Your task to perform on an android device: Do I have any events today? Image 0: 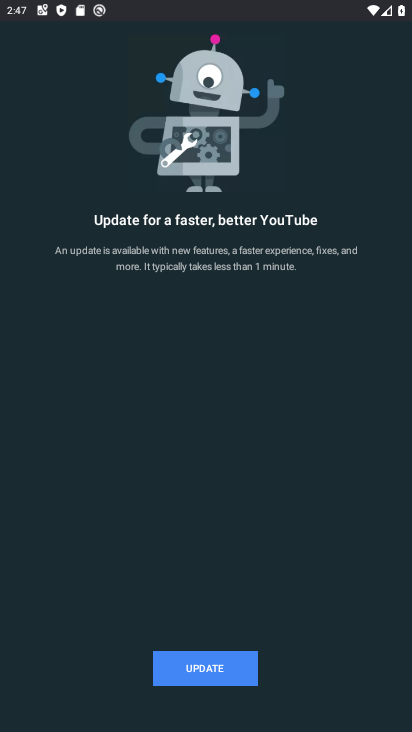
Step 0: press back button
Your task to perform on an android device: Do I have any events today? Image 1: 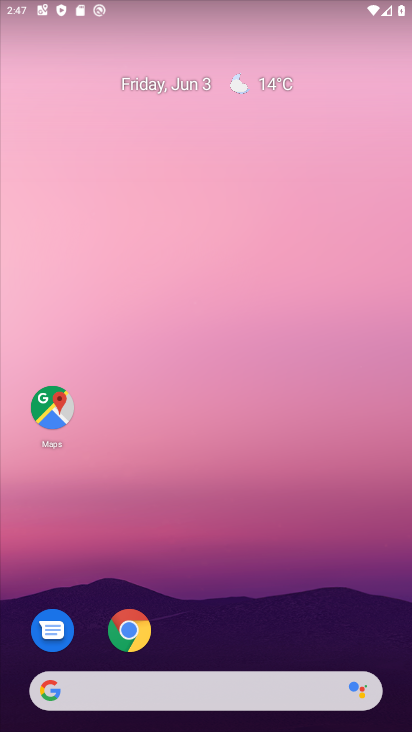
Step 1: drag from (224, 649) to (282, 201)
Your task to perform on an android device: Do I have any events today? Image 2: 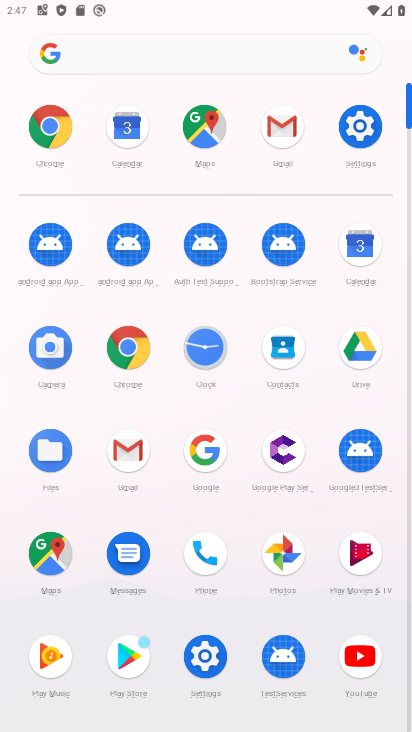
Step 2: click (369, 247)
Your task to perform on an android device: Do I have any events today? Image 3: 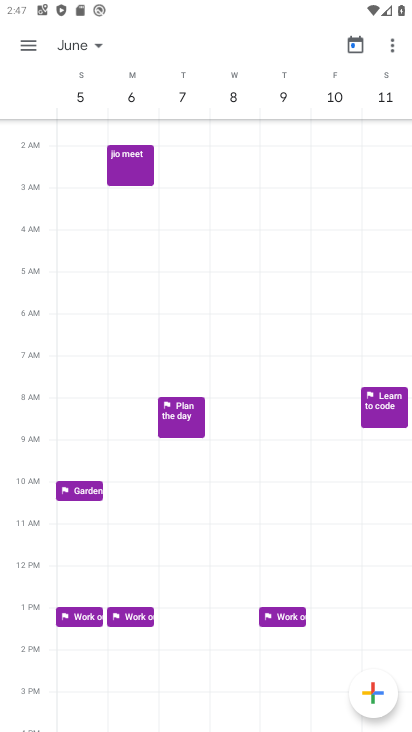
Step 3: click (38, 47)
Your task to perform on an android device: Do I have any events today? Image 4: 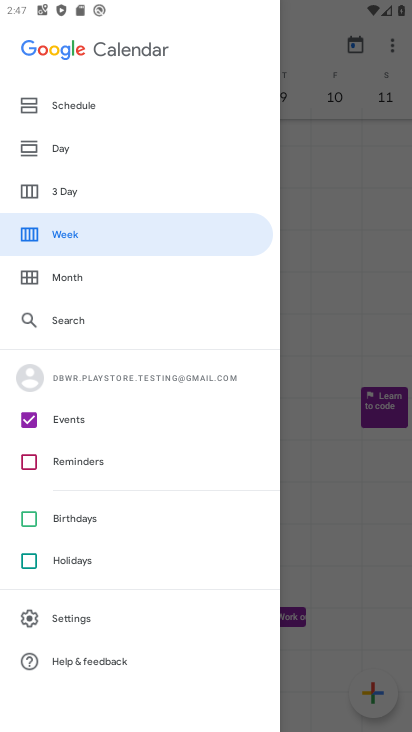
Step 4: click (73, 144)
Your task to perform on an android device: Do I have any events today? Image 5: 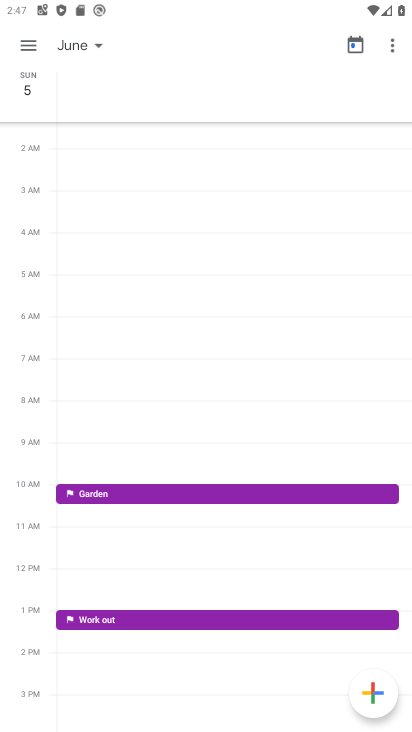
Step 5: click (71, 42)
Your task to perform on an android device: Do I have any events today? Image 6: 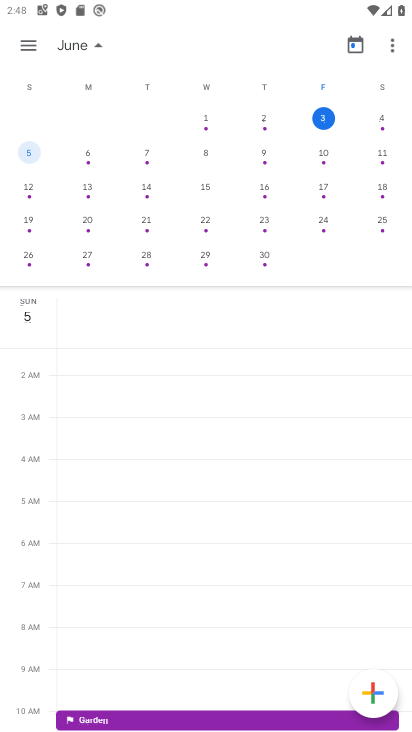
Step 6: click (327, 122)
Your task to perform on an android device: Do I have any events today? Image 7: 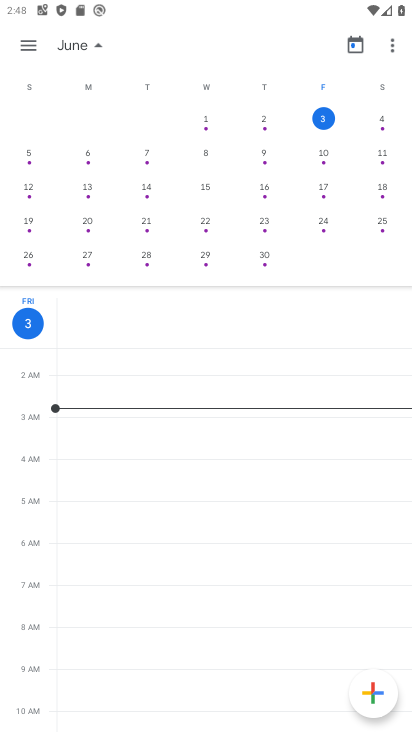
Step 7: task complete